Your task to perform on an android device: Open the phone app and click the voicemail tab. Image 0: 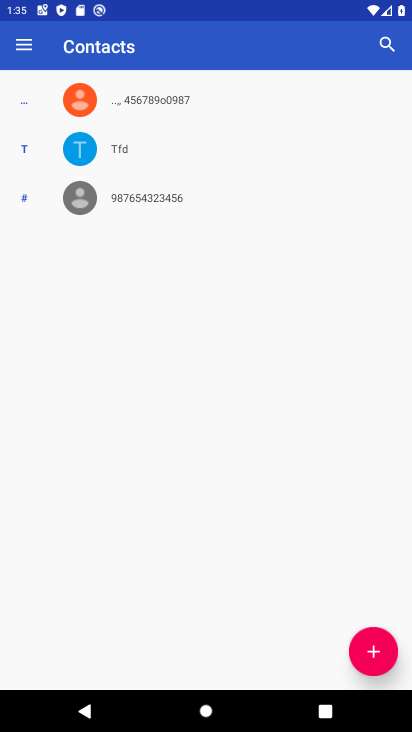
Step 0: press home button
Your task to perform on an android device: Open the phone app and click the voicemail tab. Image 1: 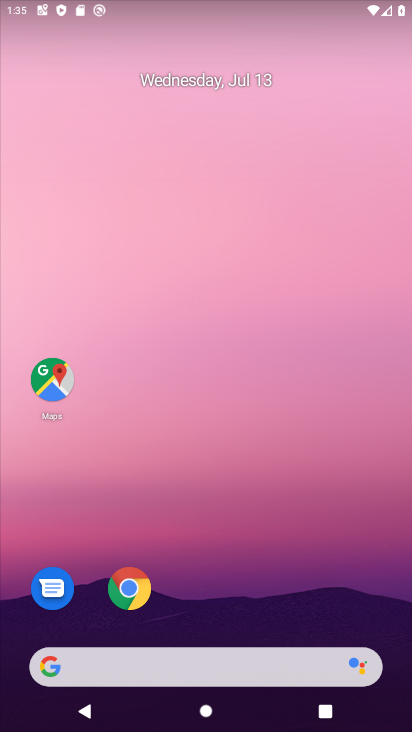
Step 1: drag from (93, 625) to (125, 223)
Your task to perform on an android device: Open the phone app and click the voicemail tab. Image 2: 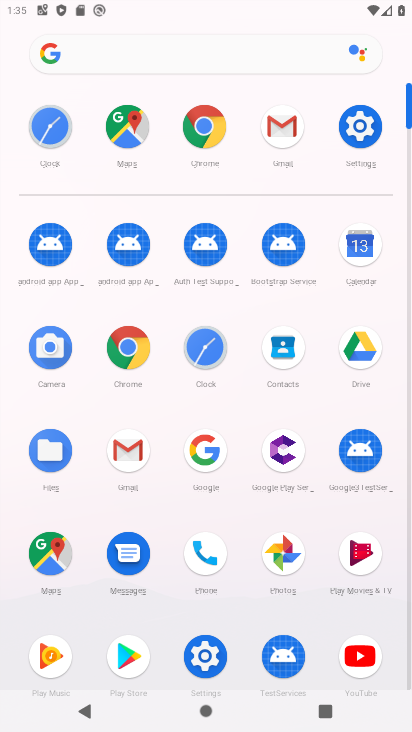
Step 2: click (202, 555)
Your task to perform on an android device: Open the phone app and click the voicemail tab. Image 3: 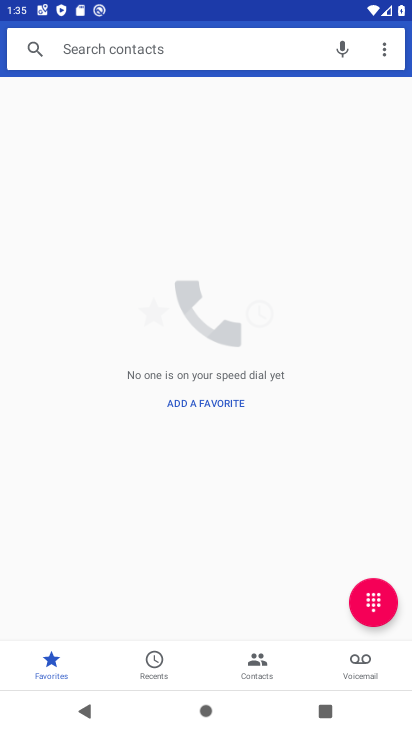
Step 3: click (357, 671)
Your task to perform on an android device: Open the phone app and click the voicemail tab. Image 4: 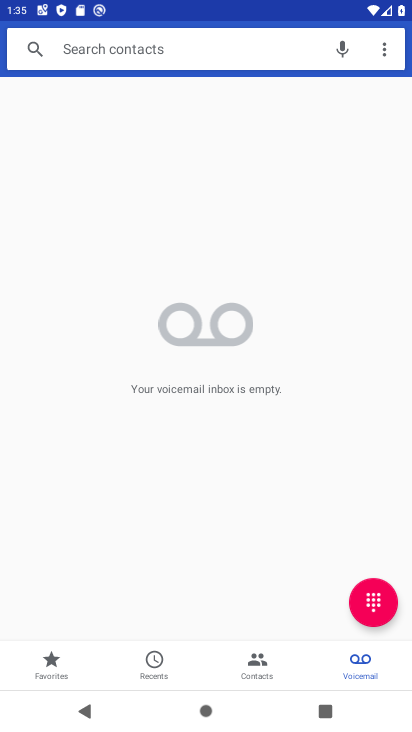
Step 4: task complete